Your task to perform on an android device: Go to settings Image 0: 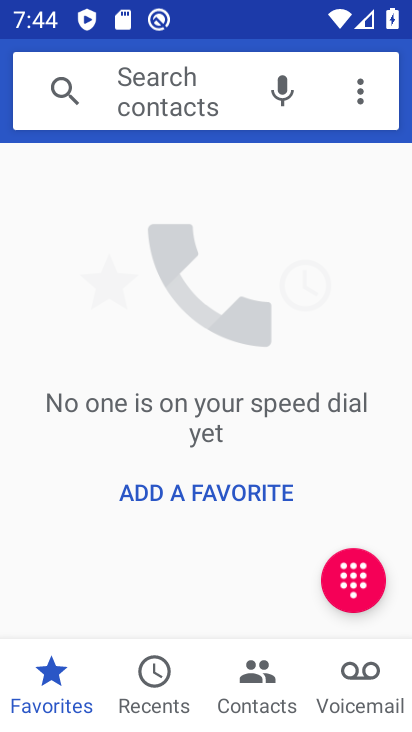
Step 0: press back button
Your task to perform on an android device: Go to settings Image 1: 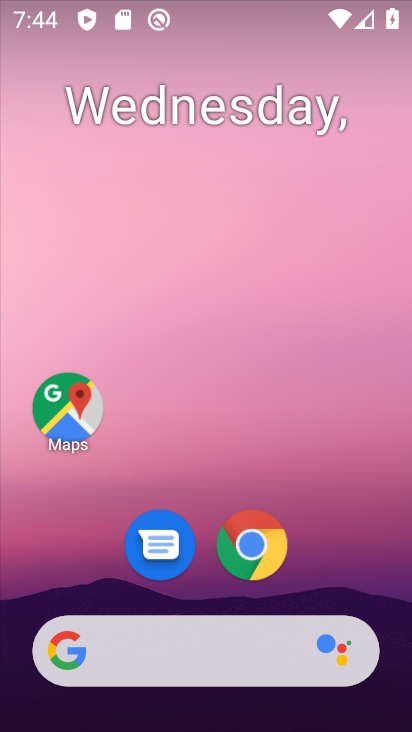
Step 1: drag from (235, 691) to (136, 31)
Your task to perform on an android device: Go to settings Image 2: 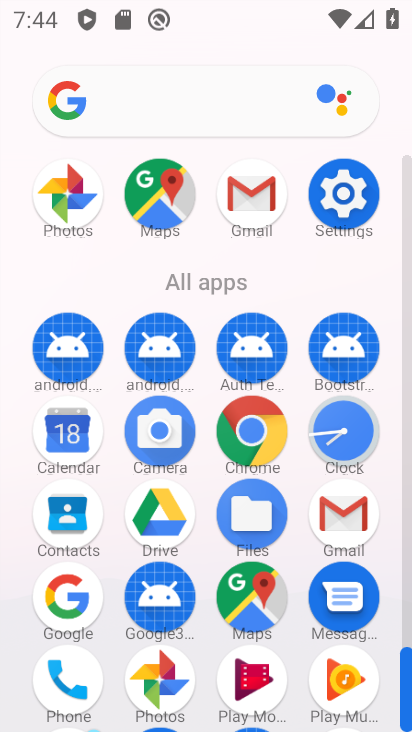
Step 2: click (335, 202)
Your task to perform on an android device: Go to settings Image 3: 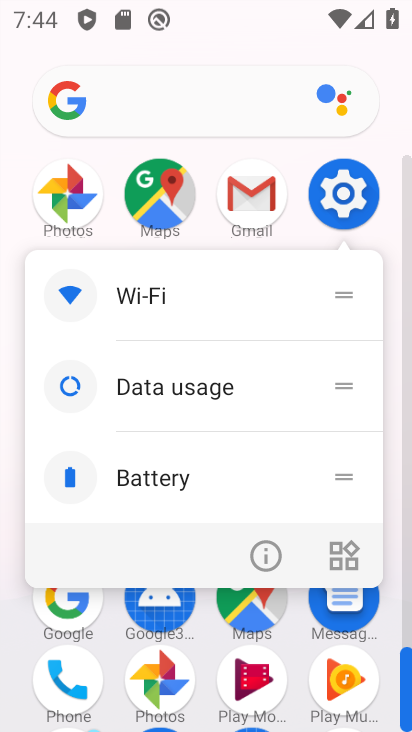
Step 3: click (341, 192)
Your task to perform on an android device: Go to settings Image 4: 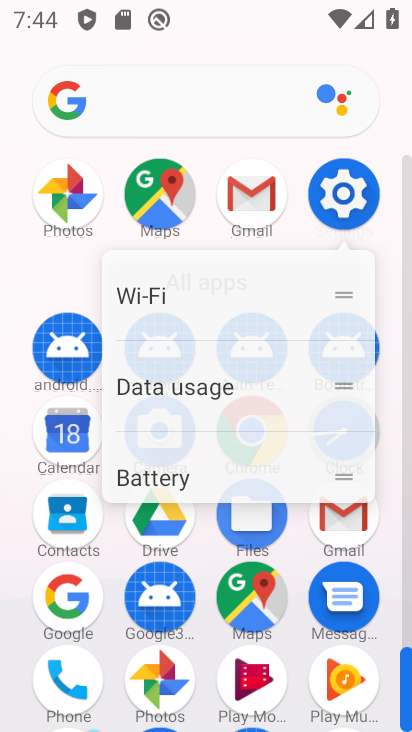
Step 4: click (341, 192)
Your task to perform on an android device: Go to settings Image 5: 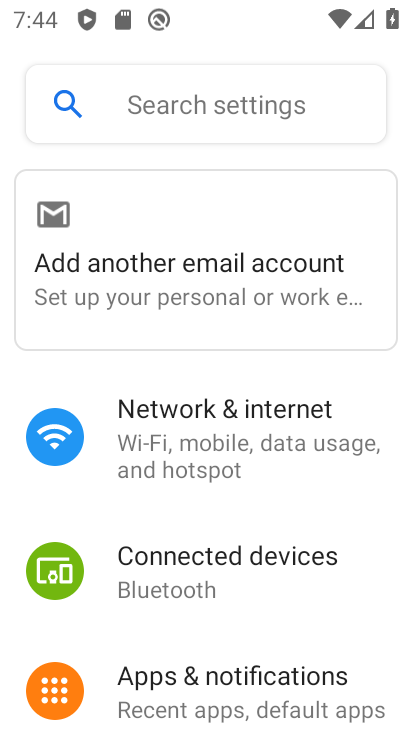
Step 5: task complete